Your task to perform on an android device: Search for asus zenbook on costco, select the first entry, add it to the cart, then select checkout. Image 0: 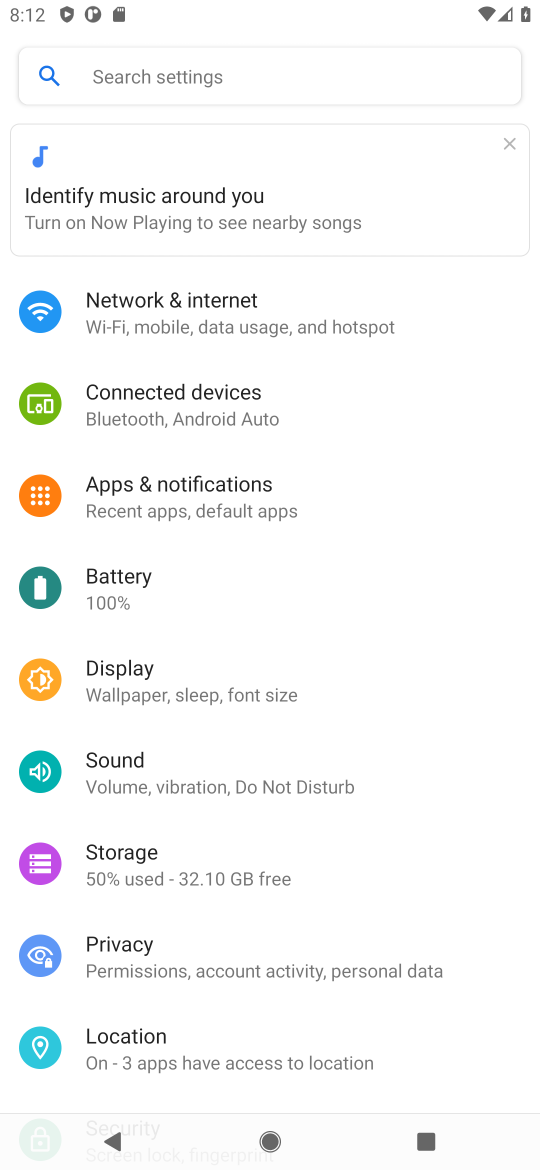
Step 0: press home button
Your task to perform on an android device: Search for asus zenbook on costco, select the first entry, add it to the cart, then select checkout. Image 1: 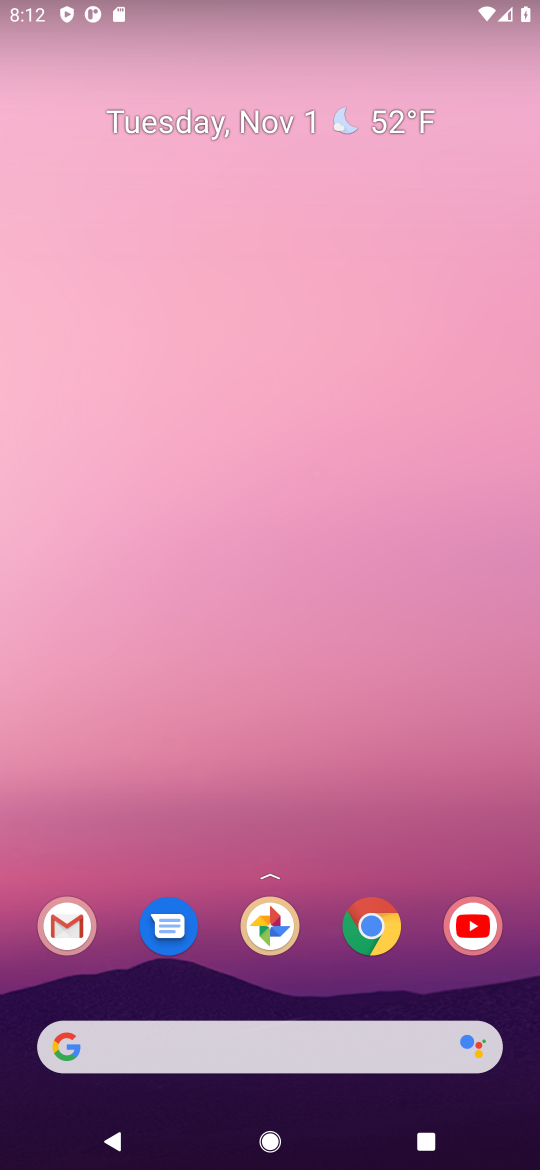
Step 1: click (370, 926)
Your task to perform on an android device: Search for asus zenbook on costco, select the first entry, add it to the cart, then select checkout. Image 2: 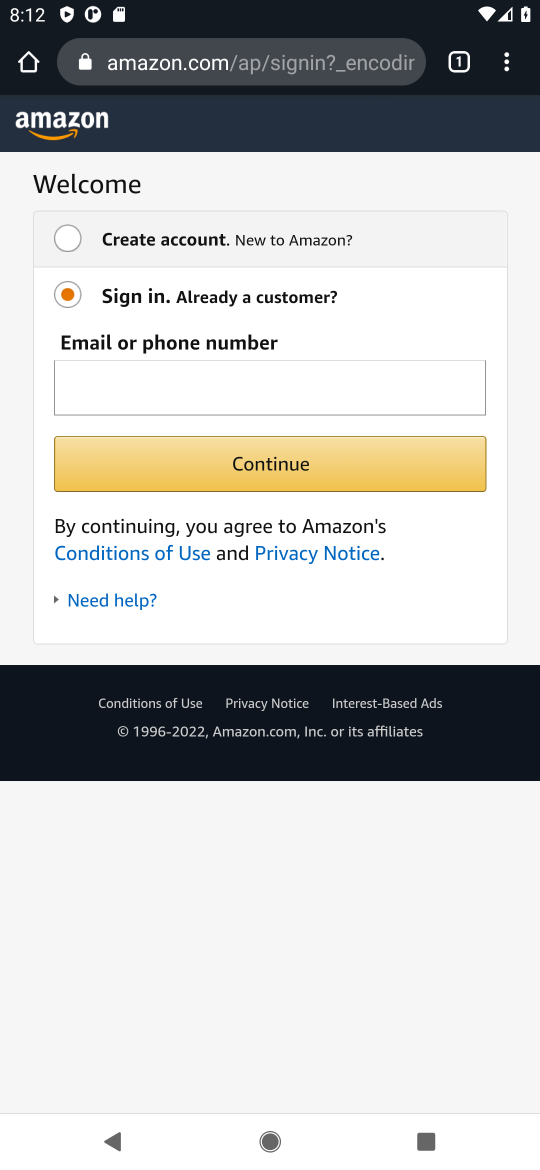
Step 2: click (233, 63)
Your task to perform on an android device: Search for asus zenbook on costco, select the first entry, add it to the cart, then select checkout. Image 3: 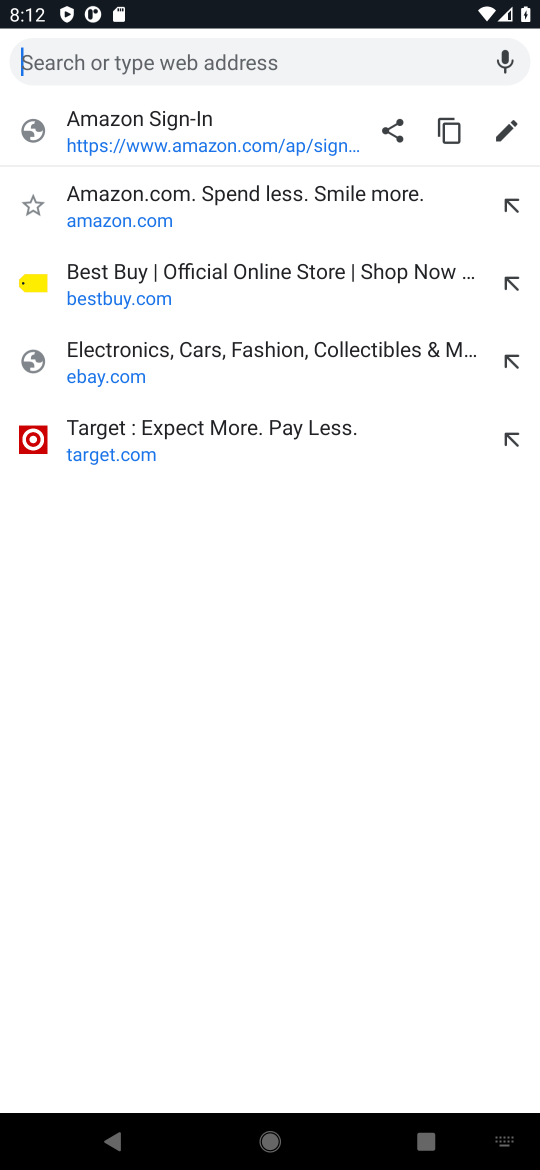
Step 3: type "costco"
Your task to perform on an android device: Search for asus zenbook on costco, select the first entry, add it to the cart, then select checkout. Image 4: 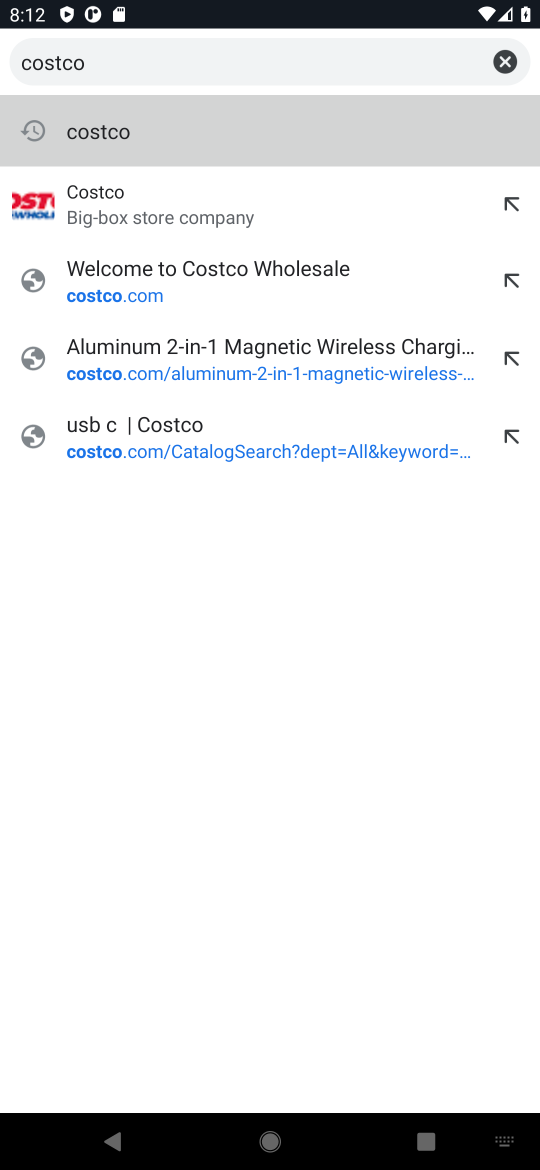
Step 4: type ""
Your task to perform on an android device: Search for asus zenbook on costco, select the first entry, add it to the cart, then select checkout. Image 5: 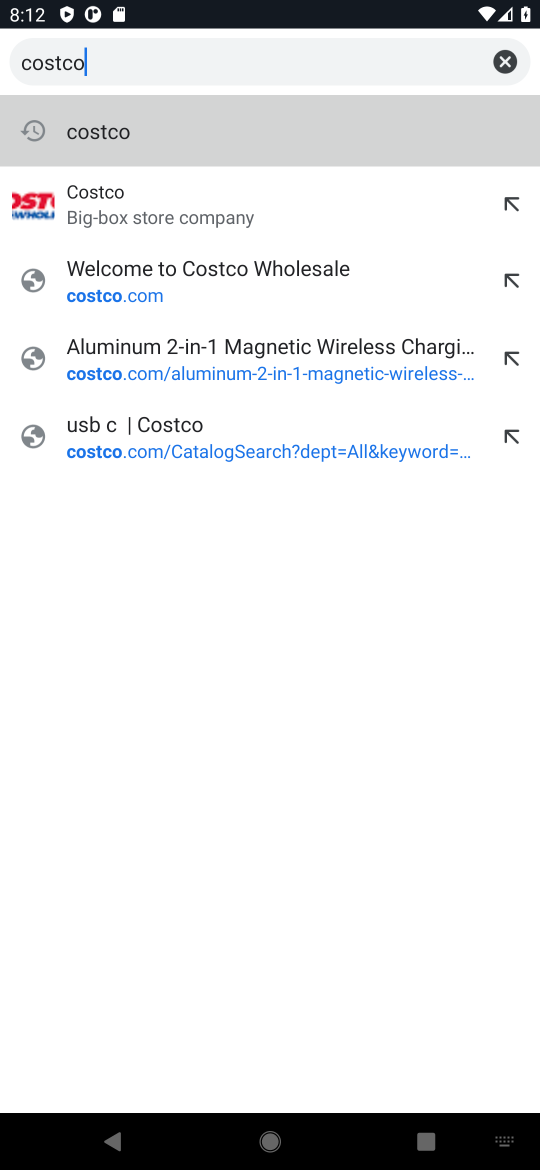
Step 5: click (118, 224)
Your task to perform on an android device: Search for asus zenbook on costco, select the first entry, add it to the cart, then select checkout. Image 6: 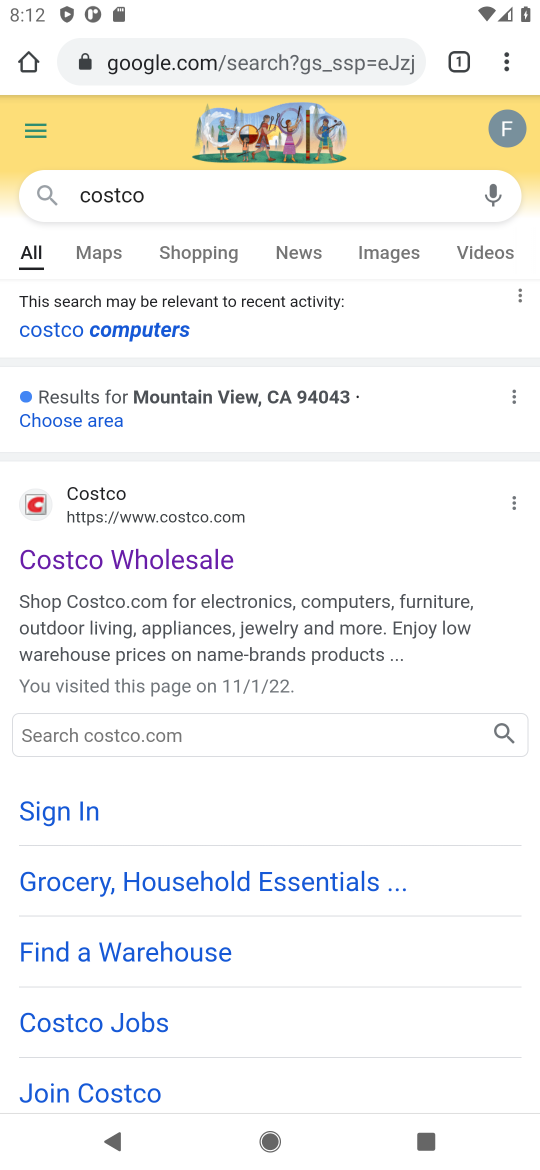
Step 6: click (71, 559)
Your task to perform on an android device: Search for asus zenbook on costco, select the first entry, add it to the cart, then select checkout. Image 7: 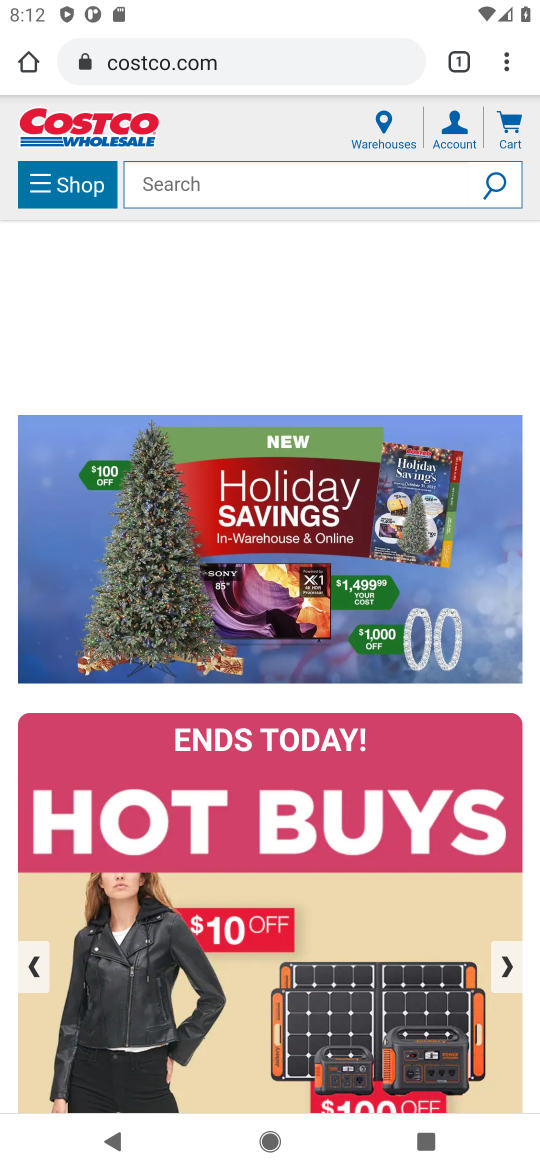
Step 7: click (162, 176)
Your task to perform on an android device: Search for asus zenbook on costco, select the first entry, add it to the cart, then select checkout. Image 8: 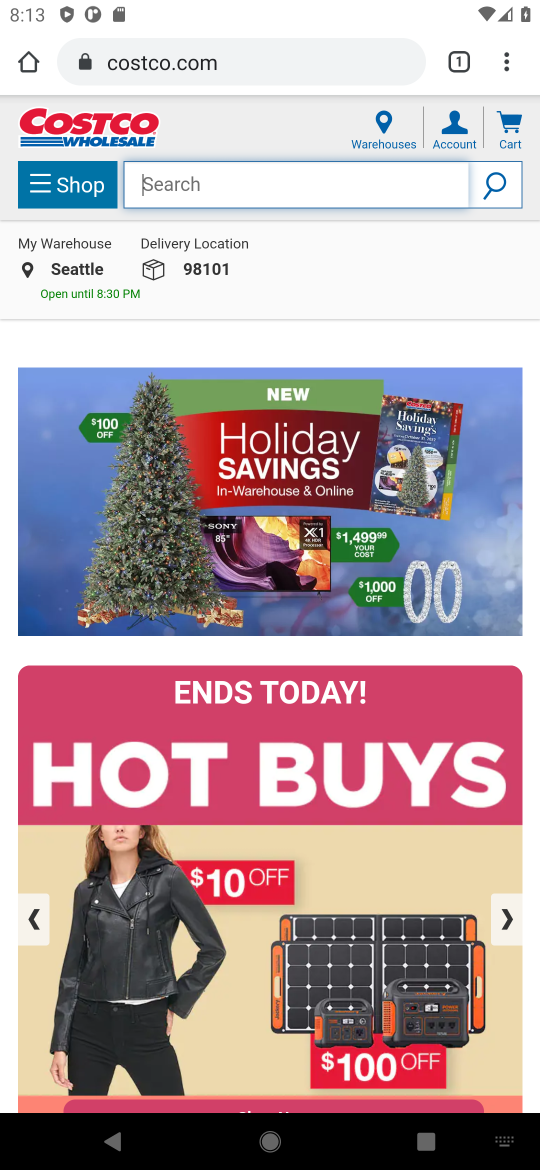
Step 8: type "asus zenbook"
Your task to perform on an android device: Search for asus zenbook on costco, select the first entry, add it to the cart, then select checkout. Image 9: 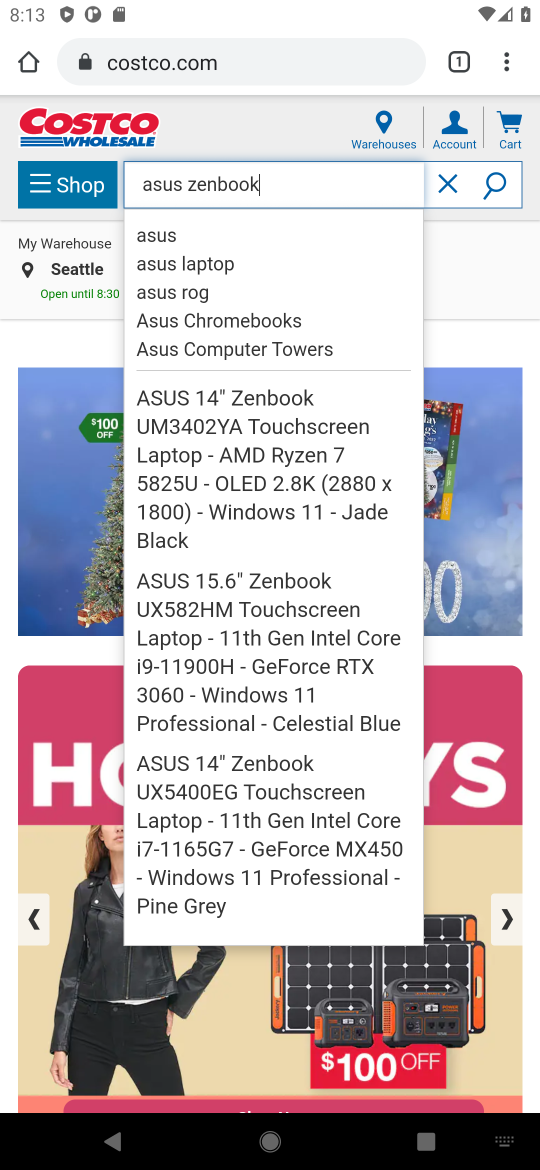
Step 9: click (197, 482)
Your task to perform on an android device: Search for asus zenbook on costco, select the first entry, add it to the cart, then select checkout. Image 10: 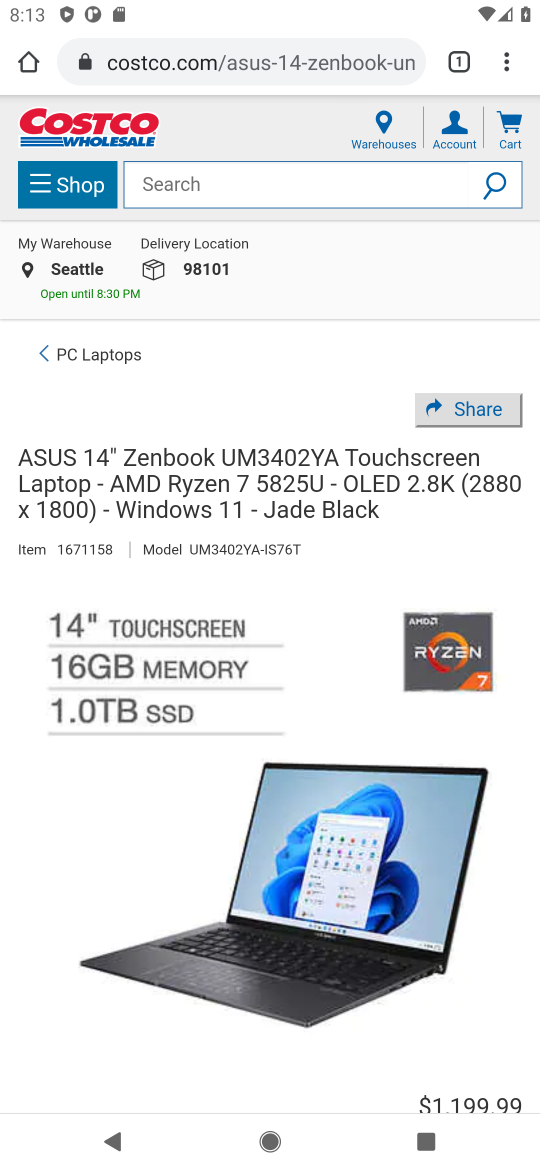
Step 10: drag from (69, 835) to (241, 134)
Your task to perform on an android device: Search for asus zenbook on costco, select the first entry, add it to the cart, then select checkout. Image 11: 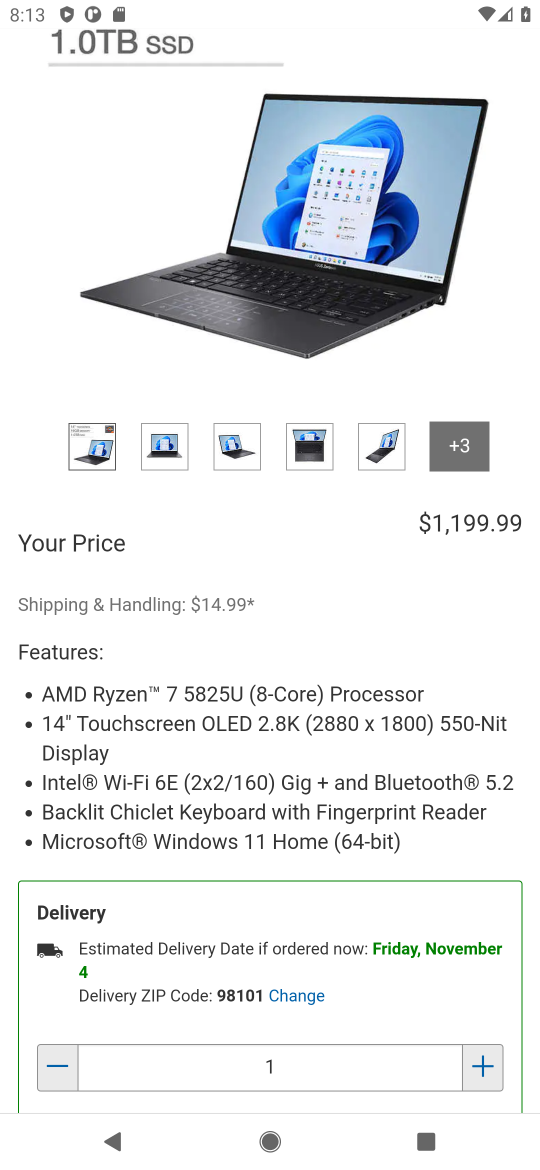
Step 11: drag from (129, 897) to (222, 320)
Your task to perform on an android device: Search for asus zenbook on costco, select the first entry, add it to the cart, then select checkout. Image 12: 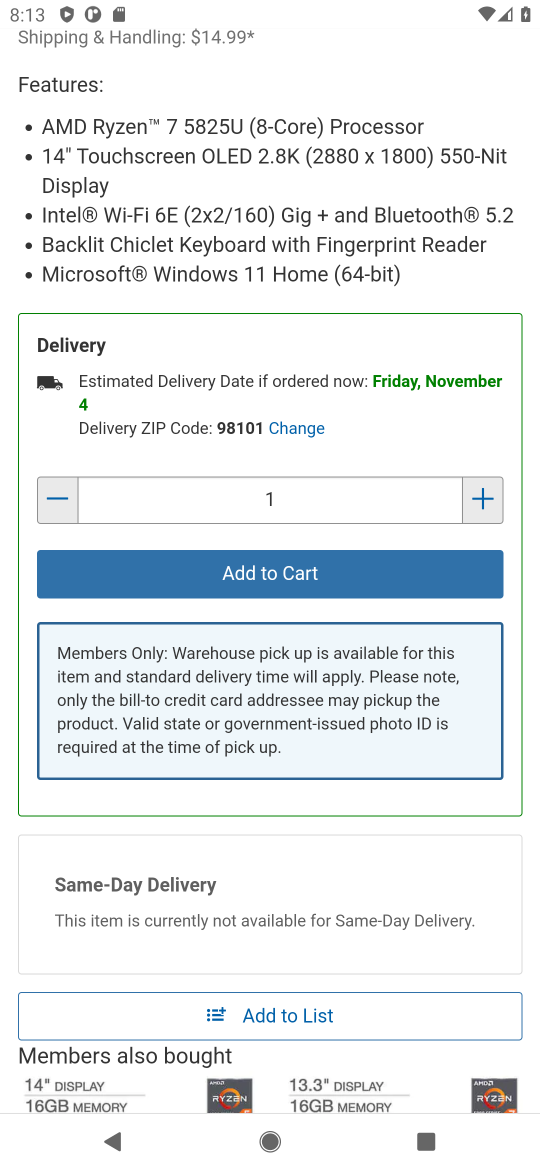
Step 12: click (248, 576)
Your task to perform on an android device: Search for asus zenbook on costco, select the first entry, add it to the cart, then select checkout. Image 13: 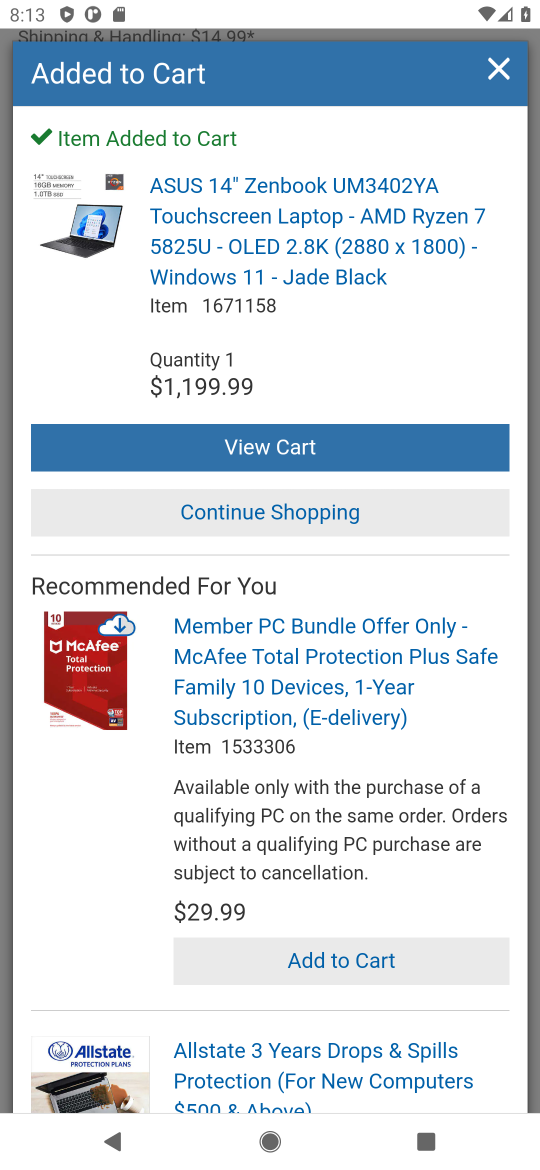
Step 13: click (225, 443)
Your task to perform on an android device: Search for asus zenbook on costco, select the first entry, add it to the cart, then select checkout. Image 14: 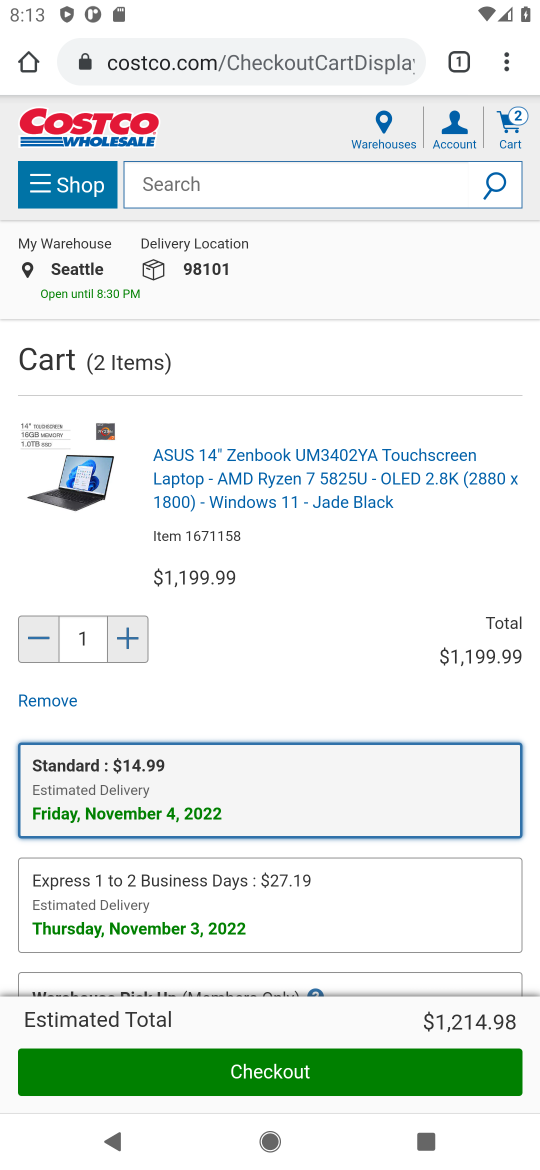
Step 14: click (247, 1066)
Your task to perform on an android device: Search for asus zenbook on costco, select the first entry, add it to the cart, then select checkout. Image 15: 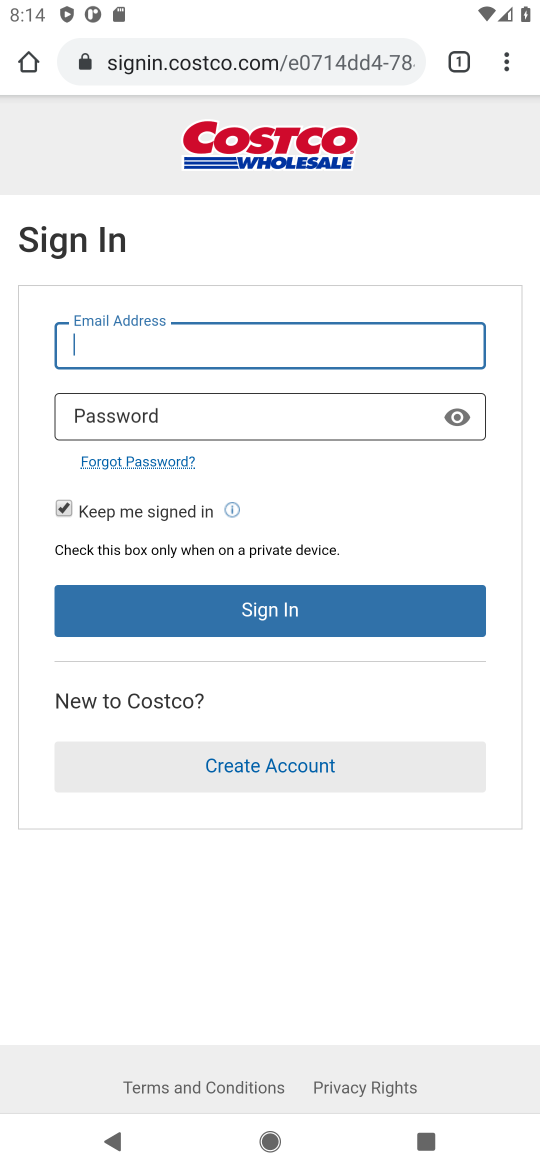
Step 15: task complete